Your task to perform on an android device: Search for hotels in Atlanta Image 0: 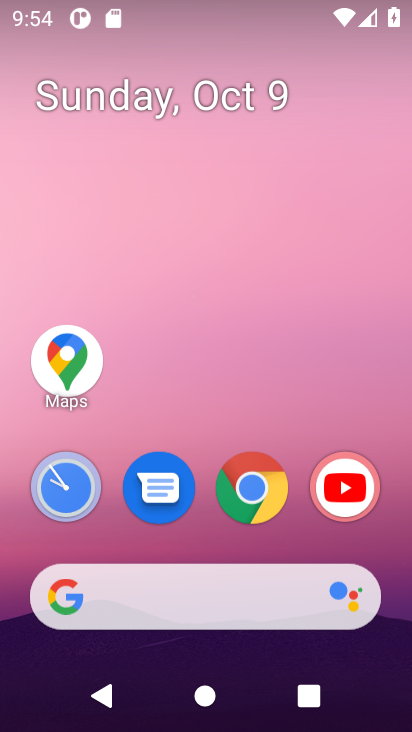
Step 0: click (254, 511)
Your task to perform on an android device: Search for hotels in Atlanta Image 1: 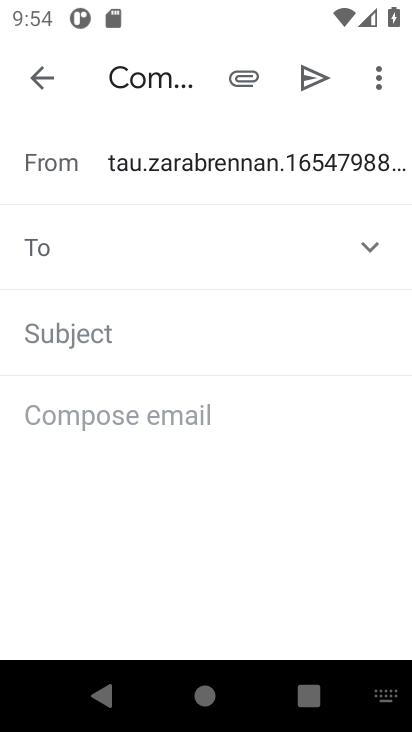
Step 1: click (392, 89)
Your task to perform on an android device: Search for hotels in Atlanta Image 2: 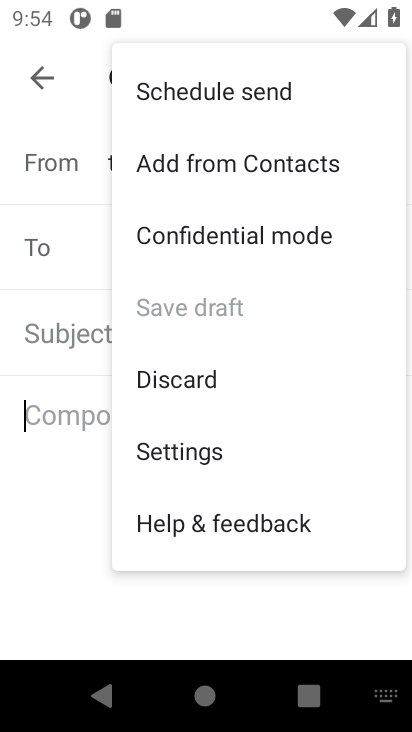
Step 2: click (224, 375)
Your task to perform on an android device: Search for hotels in Atlanta Image 3: 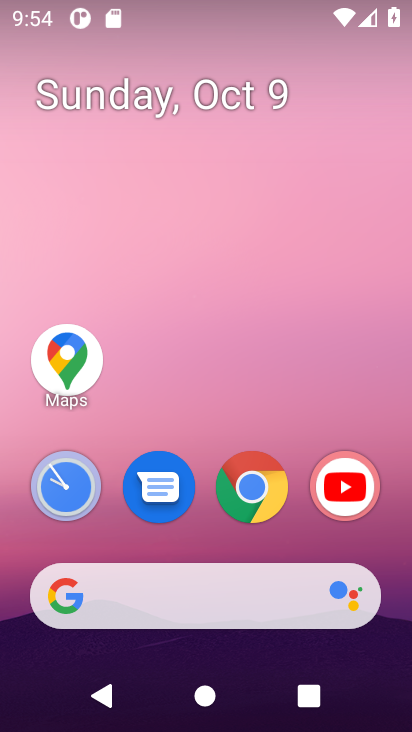
Step 3: click (257, 506)
Your task to perform on an android device: Search for hotels in Atlanta Image 4: 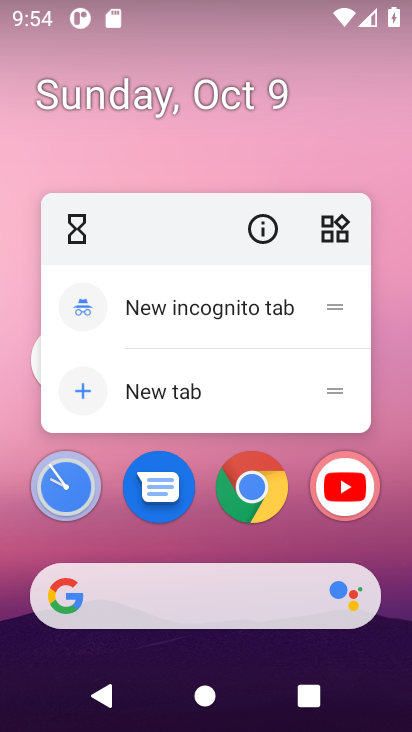
Step 4: click (257, 506)
Your task to perform on an android device: Search for hotels in Atlanta Image 5: 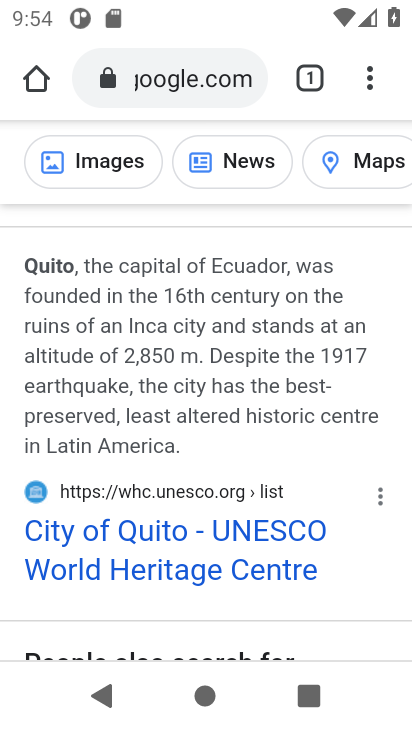
Step 5: click (140, 85)
Your task to perform on an android device: Search for hotels in Atlanta Image 6: 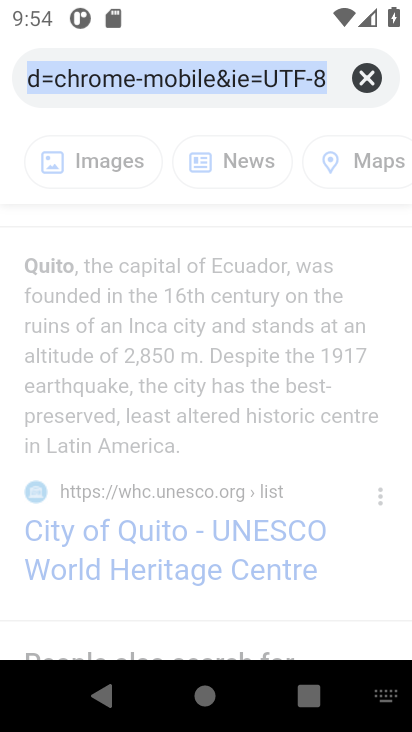
Step 6: type "hotels in Atlanta"
Your task to perform on an android device: Search for hotels in Atlanta Image 7: 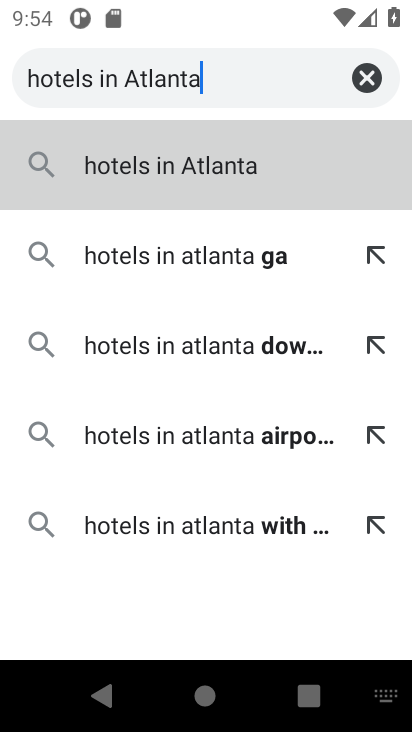
Step 7: type ""
Your task to perform on an android device: Search for hotels in Atlanta Image 8: 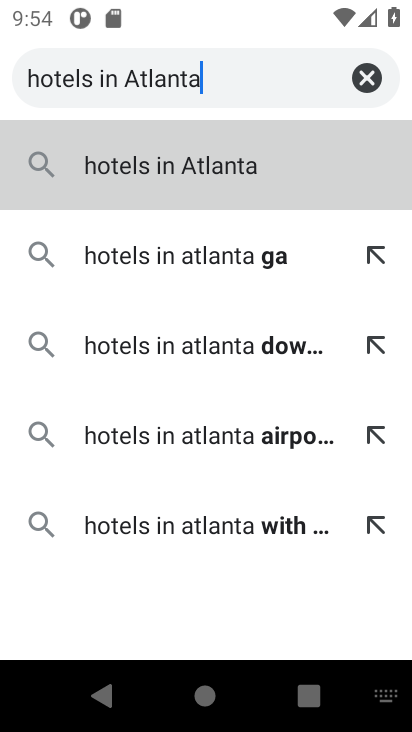
Step 8: press enter
Your task to perform on an android device: Search for hotels in Atlanta Image 9: 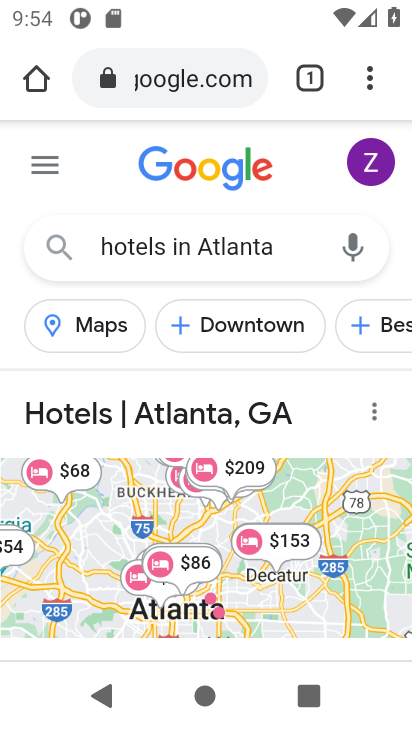
Step 9: drag from (315, 425) to (271, 147)
Your task to perform on an android device: Search for hotels in Atlanta Image 10: 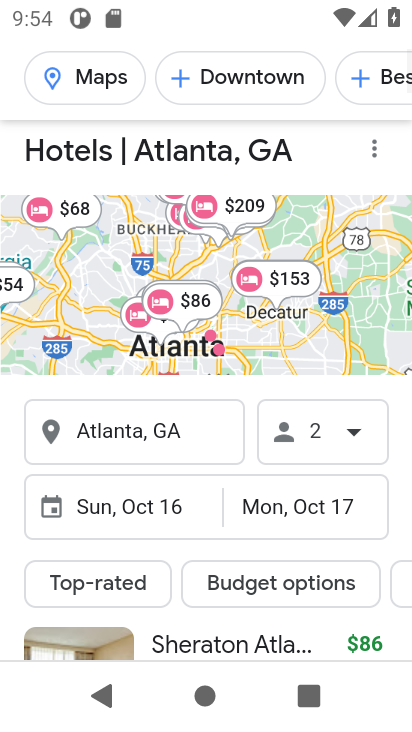
Step 10: drag from (270, 564) to (220, 216)
Your task to perform on an android device: Search for hotels in Atlanta Image 11: 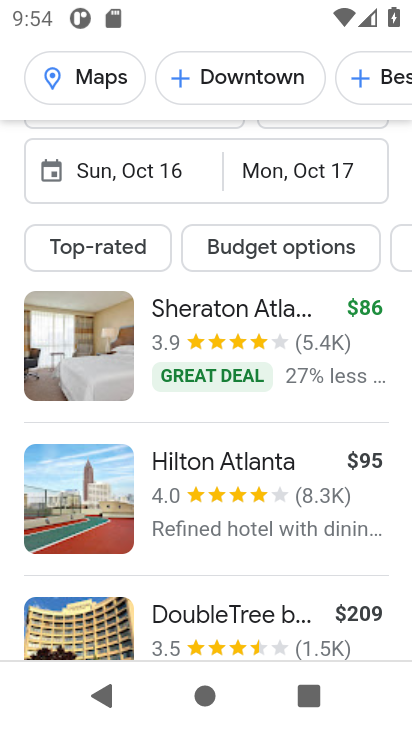
Step 11: drag from (249, 592) to (203, 247)
Your task to perform on an android device: Search for hotels in Atlanta Image 12: 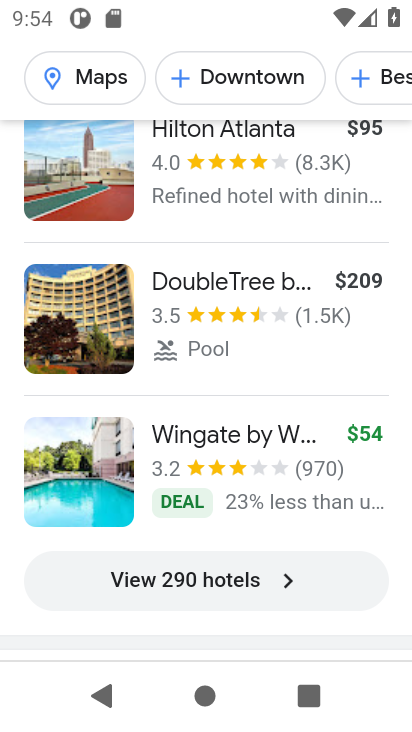
Step 12: drag from (237, 599) to (191, 288)
Your task to perform on an android device: Search for hotels in Atlanta Image 13: 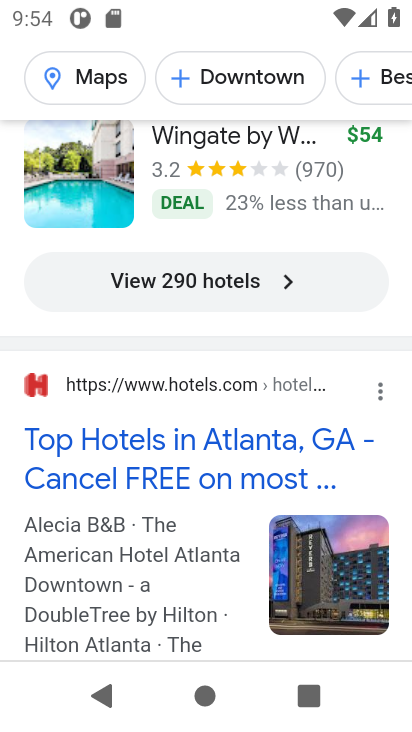
Step 13: drag from (213, 597) to (197, 401)
Your task to perform on an android device: Search for hotels in Atlanta Image 14: 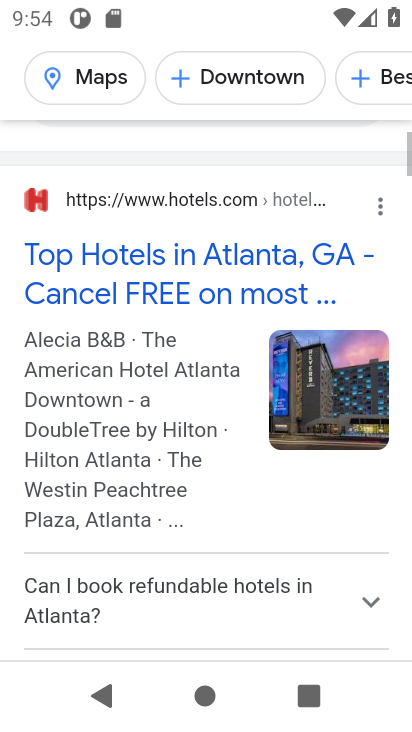
Step 14: click (151, 267)
Your task to perform on an android device: Search for hotels in Atlanta Image 15: 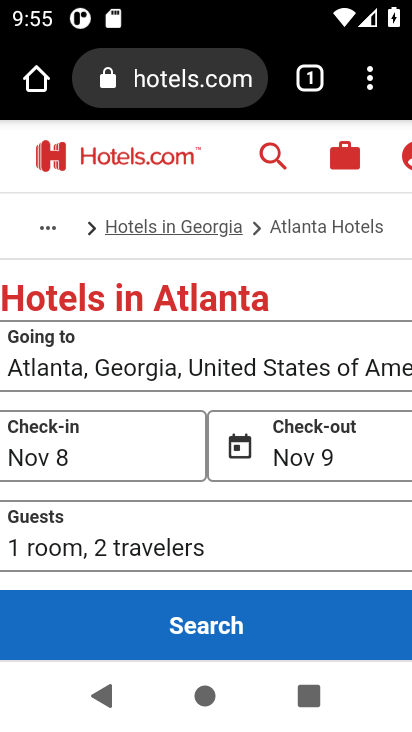
Step 15: drag from (204, 411) to (194, 341)
Your task to perform on an android device: Search for hotels in Atlanta Image 16: 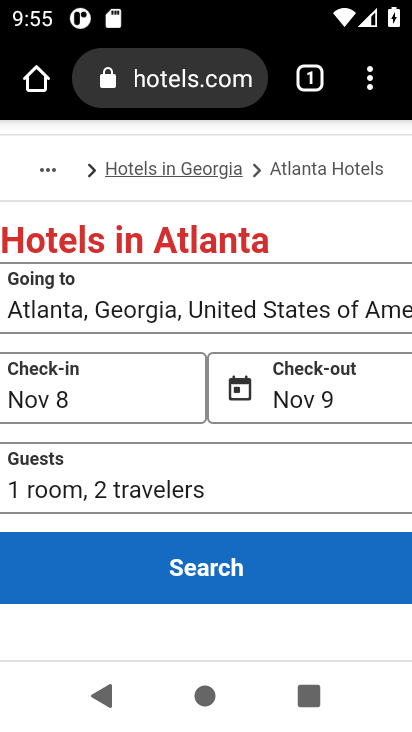
Step 16: click (257, 569)
Your task to perform on an android device: Search for hotels in Atlanta Image 17: 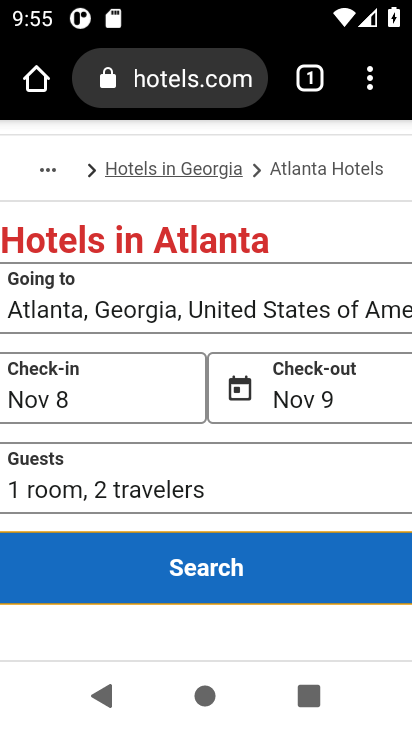
Step 17: click (252, 563)
Your task to perform on an android device: Search for hotels in Atlanta Image 18: 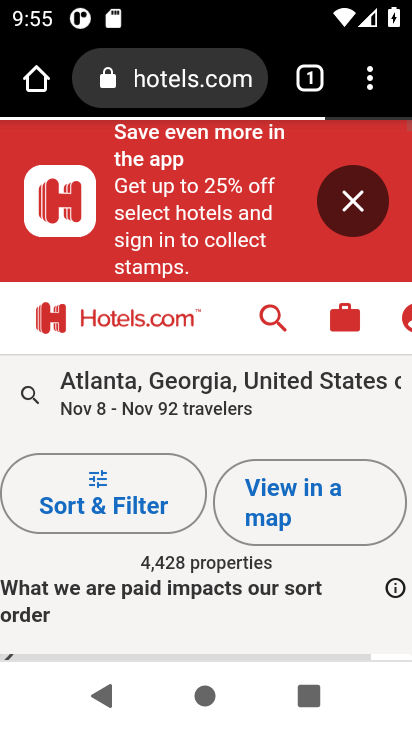
Step 18: task complete